Your task to perform on an android device: turn on the 12-hour format for clock Image 0: 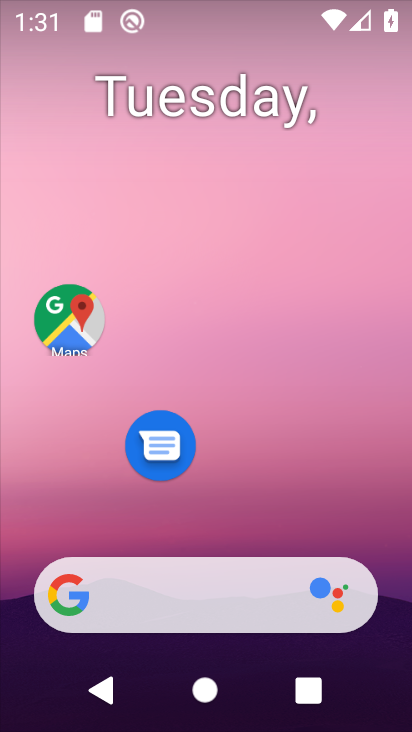
Step 0: drag from (271, 497) to (191, 25)
Your task to perform on an android device: turn on the 12-hour format for clock Image 1: 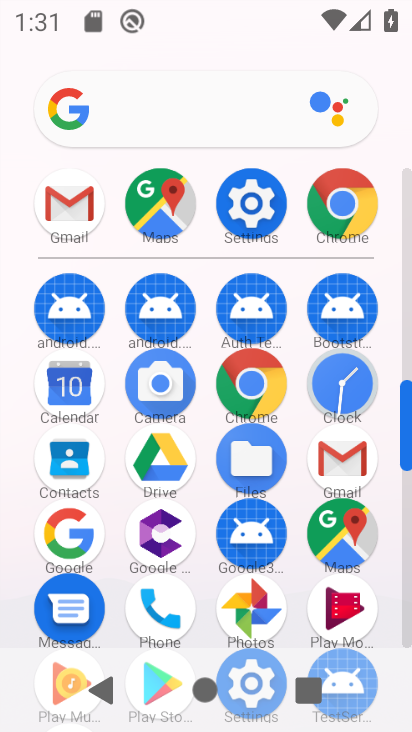
Step 1: click (339, 385)
Your task to perform on an android device: turn on the 12-hour format for clock Image 2: 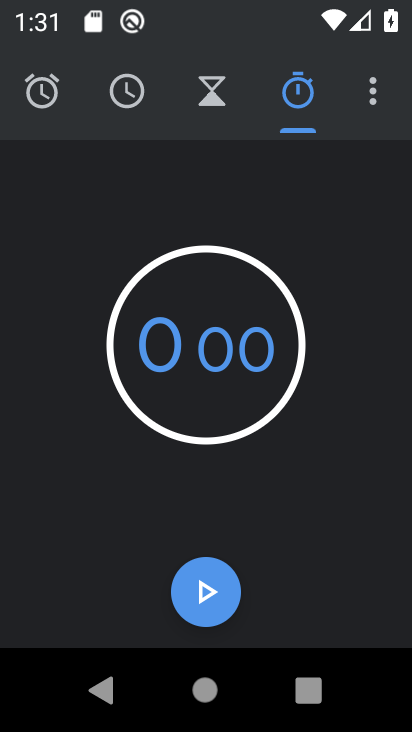
Step 2: click (375, 95)
Your task to perform on an android device: turn on the 12-hour format for clock Image 3: 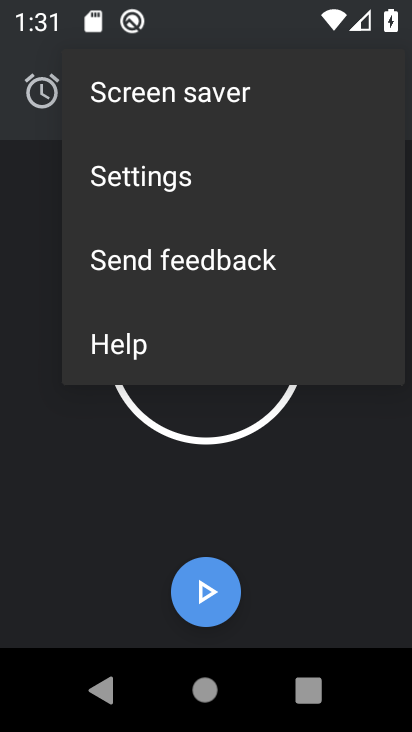
Step 3: click (168, 175)
Your task to perform on an android device: turn on the 12-hour format for clock Image 4: 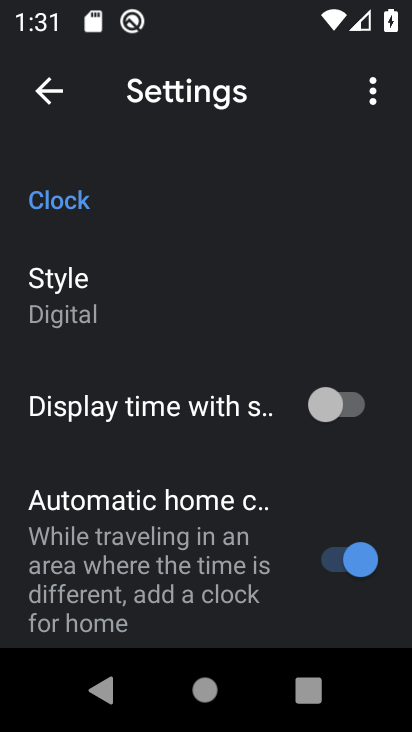
Step 4: drag from (233, 465) to (180, 156)
Your task to perform on an android device: turn on the 12-hour format for clock Image 5: 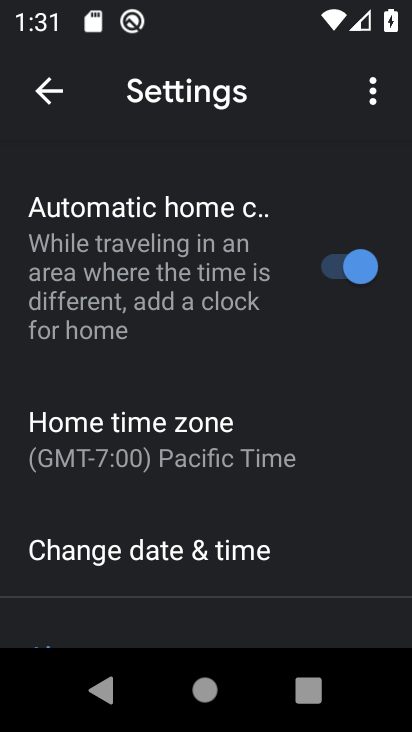
Step 5: click (179, 547)
Your task to perform on an android device: turn on the 12-hour format for clock Image 6: 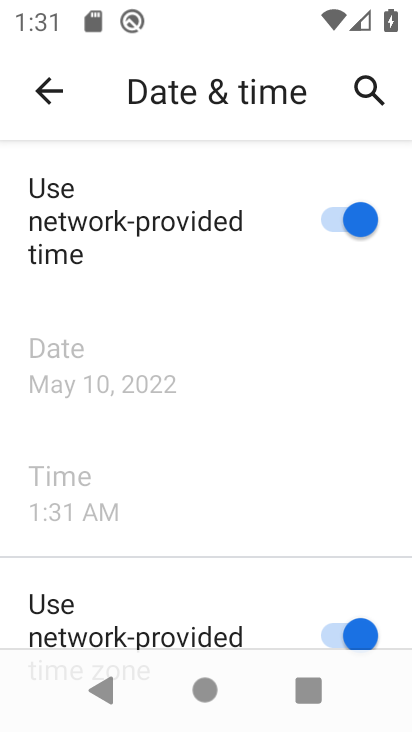
Step 6: task complete